Your task to perform on an android device: stop showing notifications on the lock screen Image 0: 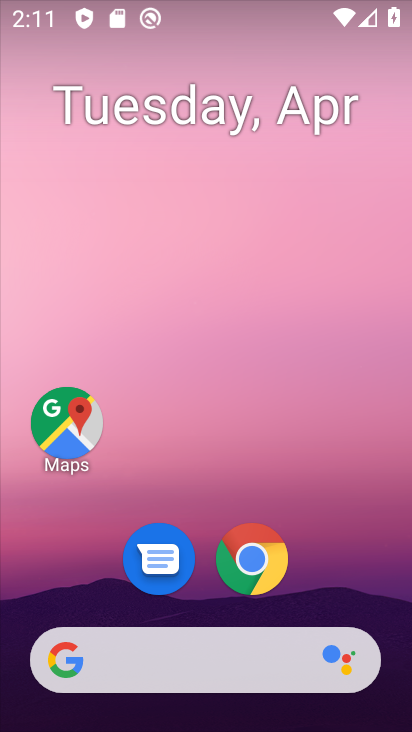
Step 0: drag from (204, 546) to (274, 153)
Your task to perform on an android device: stop showing notifications on the lock screen Image 1: 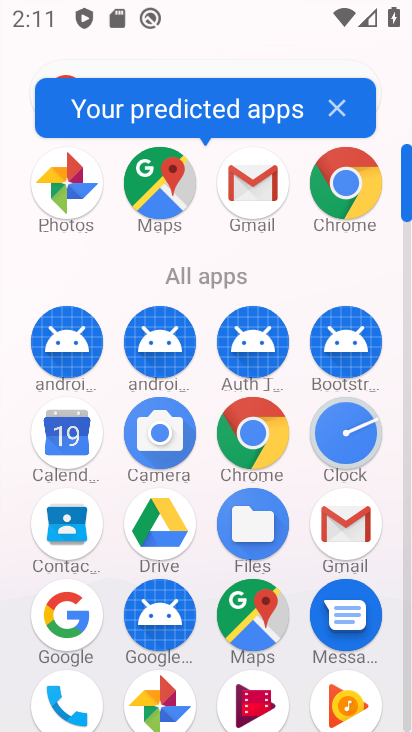
Step 1: drag from (214, 595) to (274, 248)
Your task to perform on an android device: stop showing notifications on the lock screen Image 2: 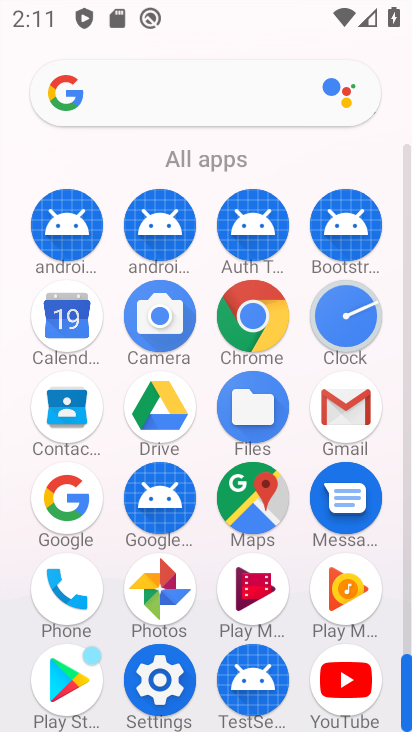
Step 2: click (162, 683)
Your task to perform on an android device: stop showing notifications on the lock screen Image 3: 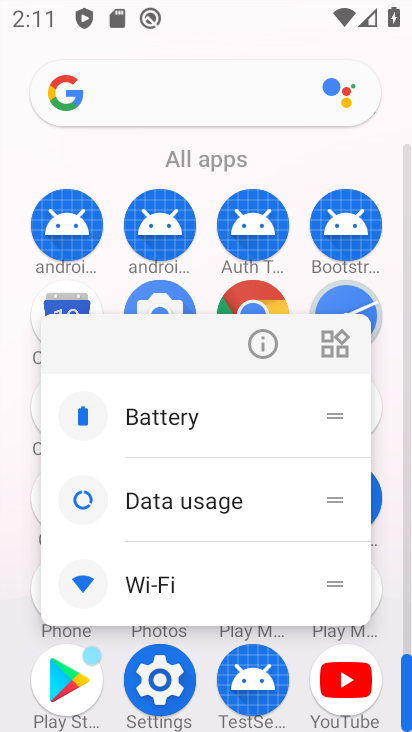
Step 3: click (163, 680)
Your task to perform on an android device: stop showing notifications on the lock screen Image 4: 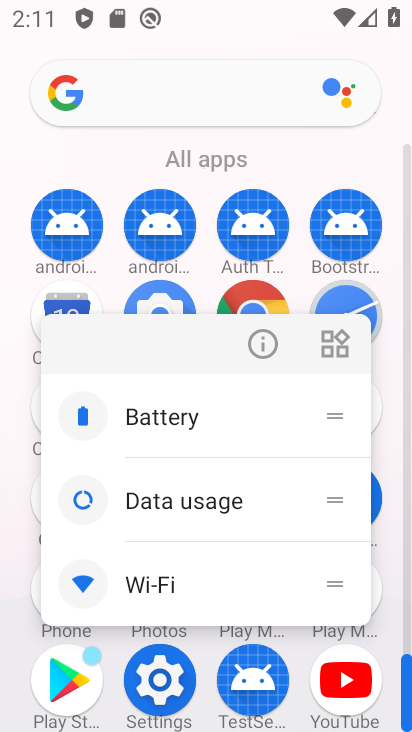
Step 4: click (177, 674)
Your task to perform on an android device: stop showing notifications on the lock screen Image 5: 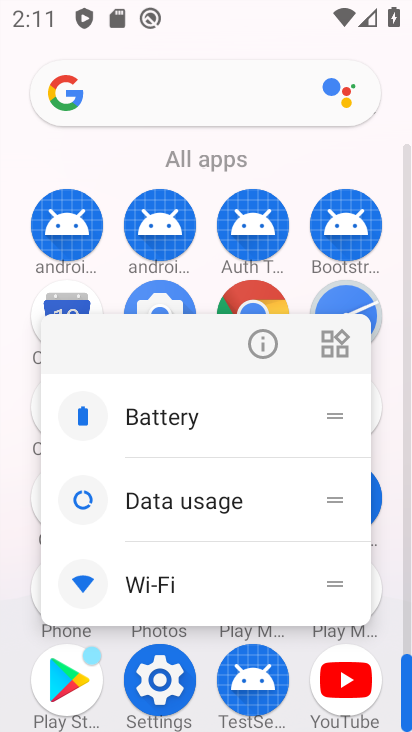
Step 5: click (164, 680)
Your task to perform on an android device: stop showing notifications on the lock screen Image 6: 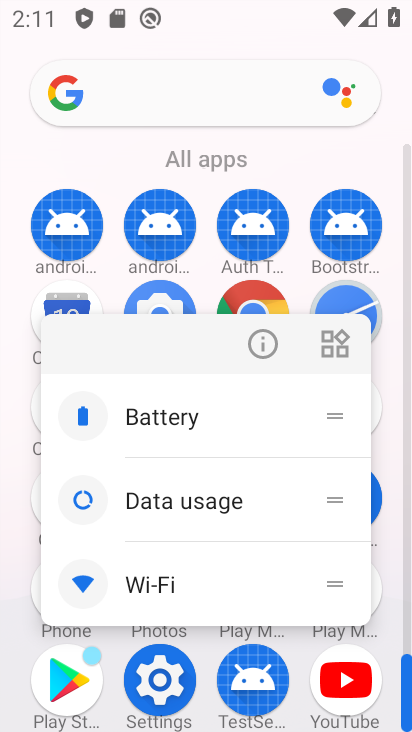
Step 6: click (170, 672)
Your task to perform on an android device: stop showing notifications on the lock screen Image 7: 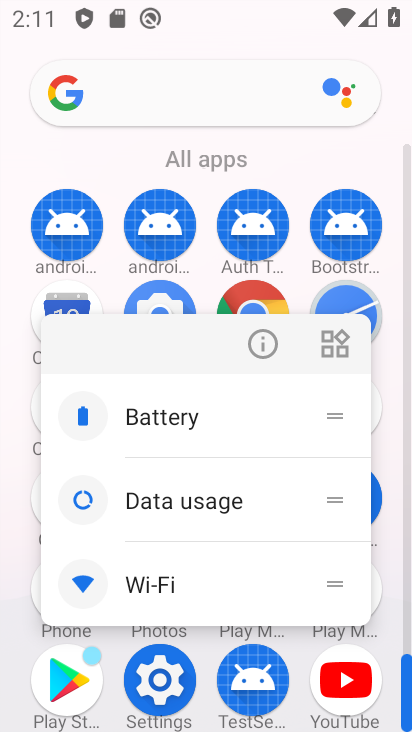
Step 7: click (156, 686)
Your task to perform on an android device: stop showing notifications on the lock screen Image 8: 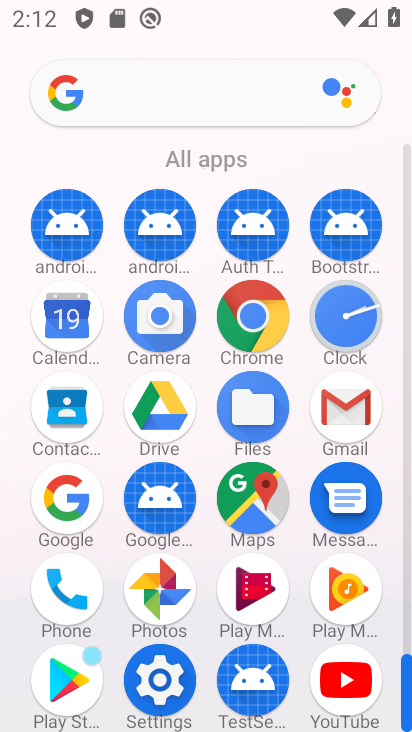
Step 8: click (160, 685)
Your task to perform on an android device: stop showing notifications on the lock screen Image 9: 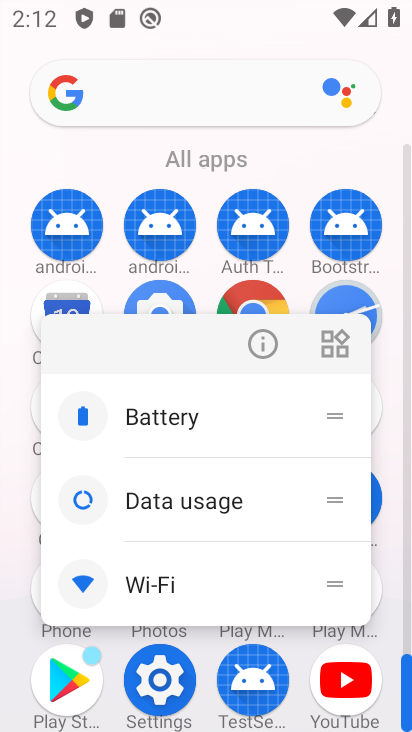
Step 9: click (159, 674)
Your task to perform on an android device: stop showing notifications on the lock screen Image 10: 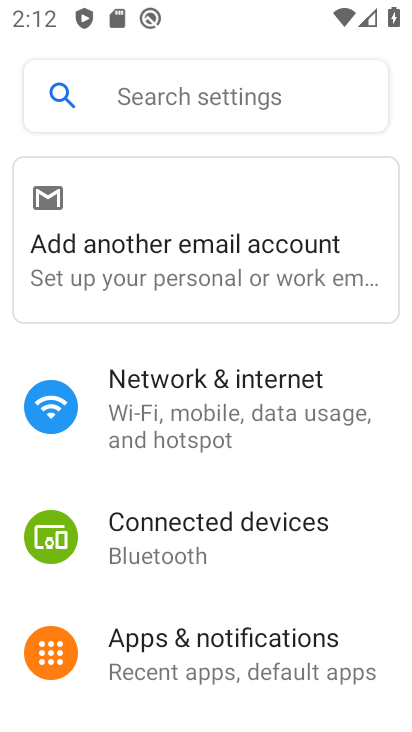
Step 10: drag from (254, 550) to (343, 322)
Your task to perform on an android device: stop showing notifications on the lock screen Image 11: 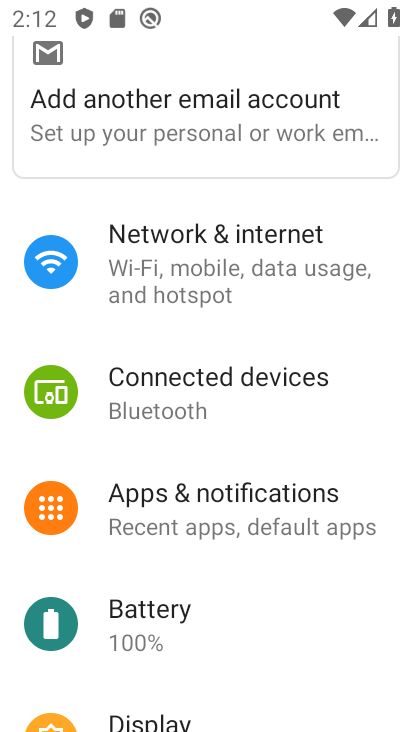
Step 11: click (254, 500)
Your task to perform on an android device: stop showing notifications on the lock screen Image 12: 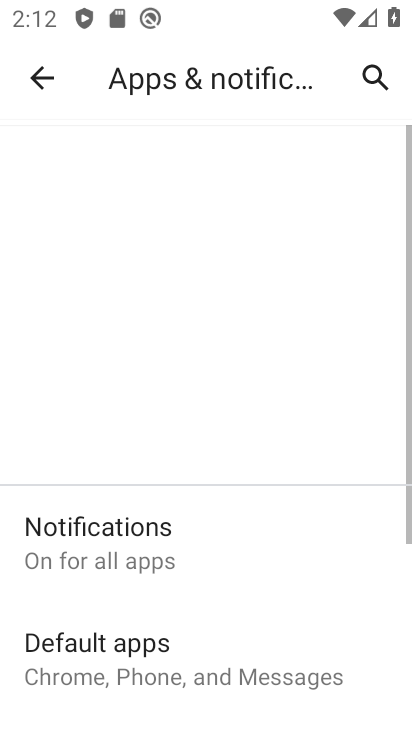
Step 12: click (251, 528)
Your task to perform on an android device: stop showing notifications on the lock screen Image 13: 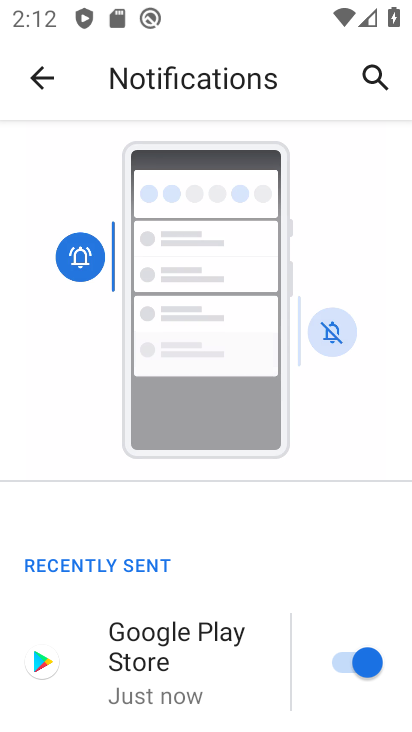
Step 13: drag from (231, 674) to (382, 120)
Your task to perform on an android device: stop showing notifications on the lock screen Image 14: 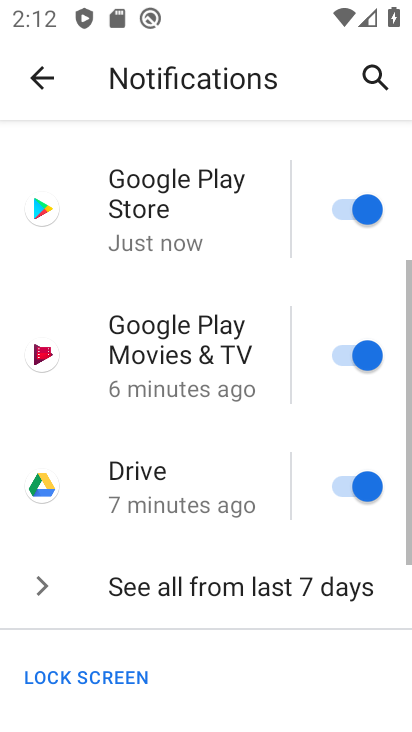
Step 14: drag from (248, 540) to (321, 213)
Your task to perform on an android device: stop showing notifications on the lock screen Image 15: 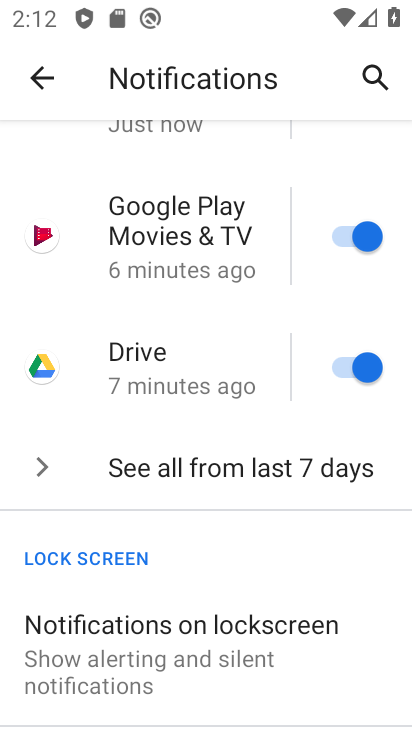
Step 15: click (281, 628)
Your task to perform on an android device: stop showing notifications on the lock screen Image 16: 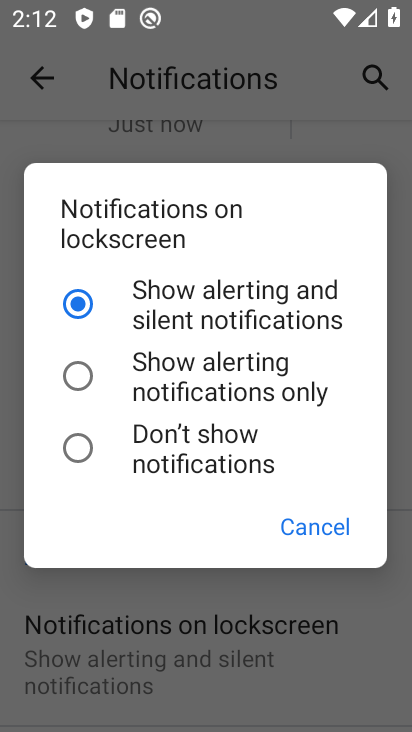
Step 16: click (257, 440)
Your task to perform on an android device: stop showing notifications on the lock screen Image 17: 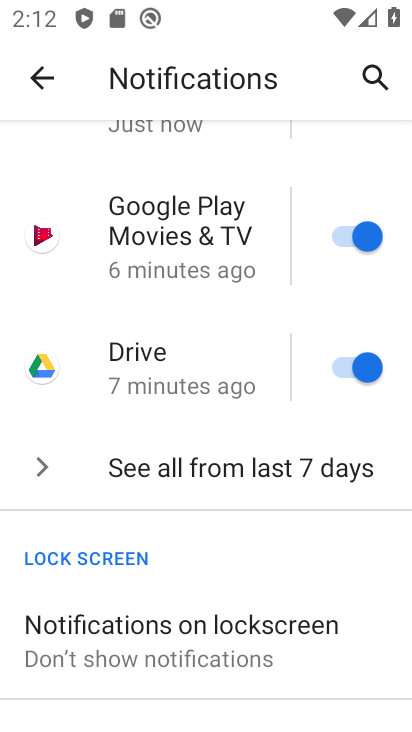
Step 17: task complete